Your task to perform on an android device: change the clock display to digital Image 0: 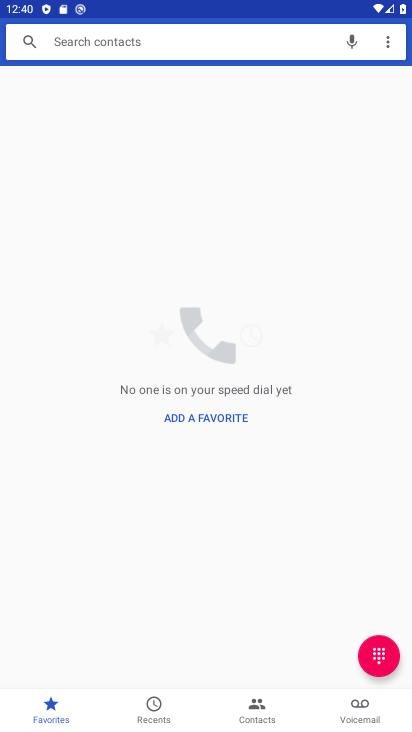
Step 0: press home button
Your task to perform on an android device: change the clock display to digital Image 1: 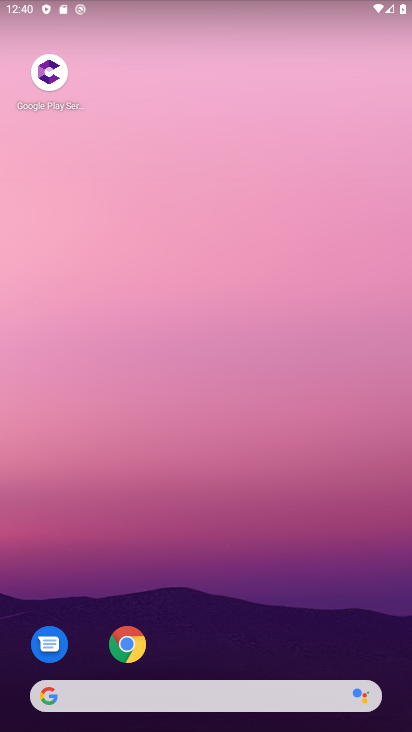
Step 1: drag from (25, 700) to (323, 48)
Your task to perform on an android device: change the clock display to digital Image 2: 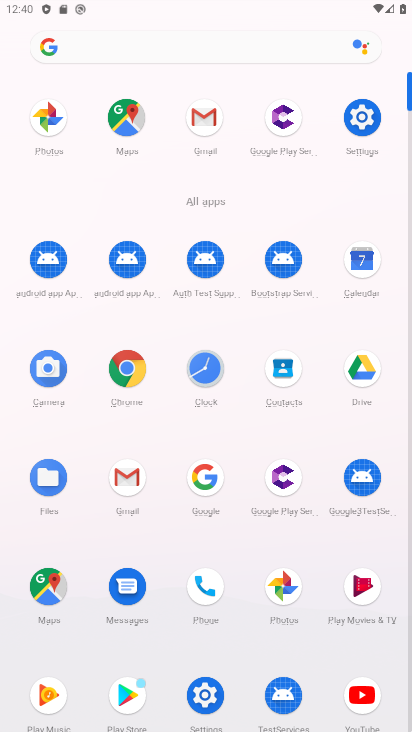
Step 2: click (212, 360)
Your task to perform on an android device: change the clock display to digital Image 3: 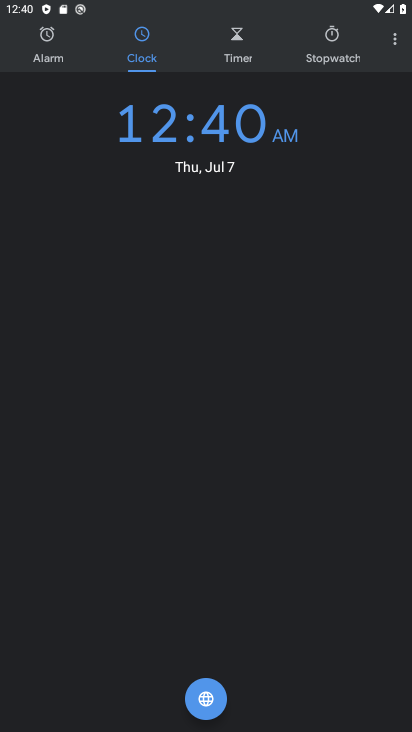
Step 3: click (398, 32)
Your task to perform on an android device: change the clock display to digital Image 4: 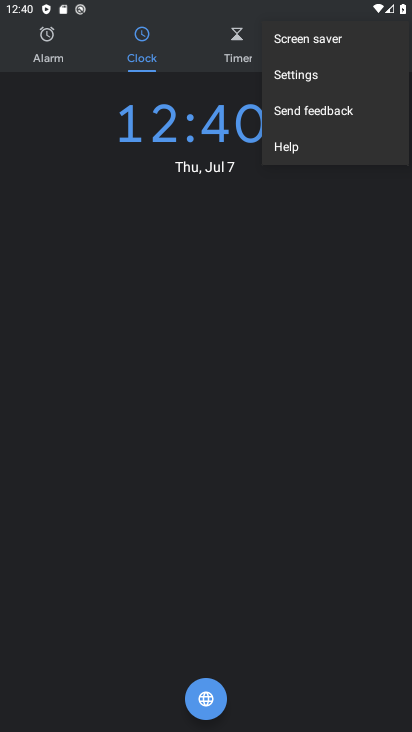
Step 4: click (304, 73)
Your task to perform on an android device: change the clock display to digital Image 5: 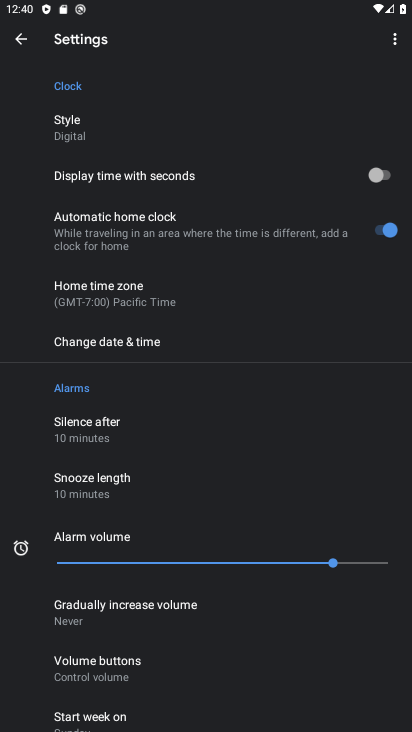
Step 5: click (81, 132)
Your task to perform on an android device: change the clock display to digital Image 6: 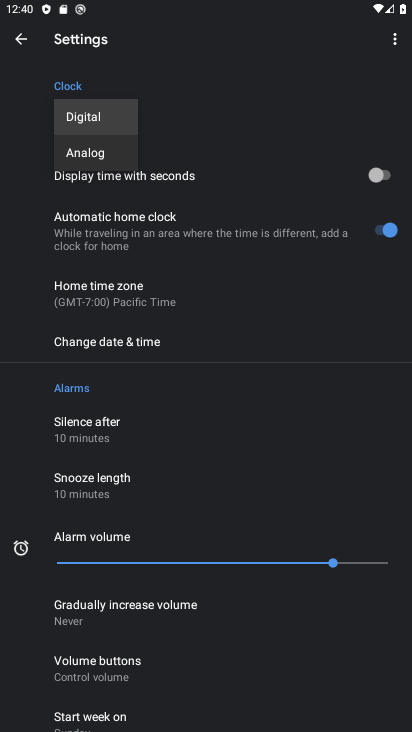
Step 6: click (95, 111)
Your task to perform on an android device: change the clock display to digital Image 7: 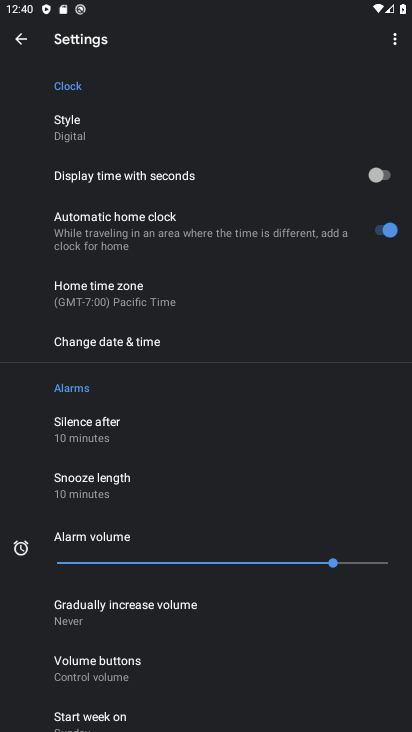
Step 7: task complete